Your task to perform on an android device: Open location settings Image 0: 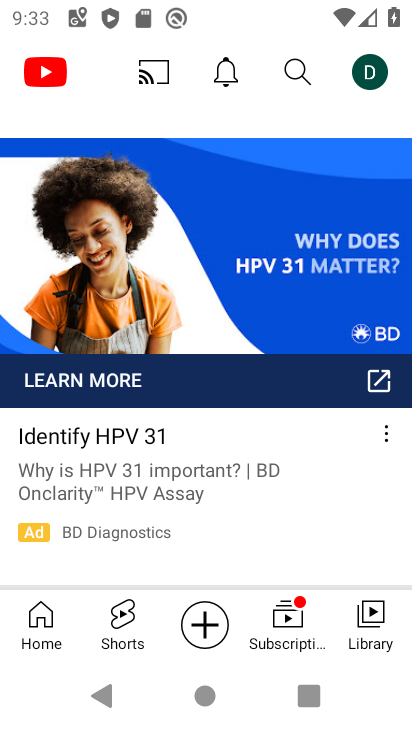
Step 0: press home button
Your task to perform on an android device: Open location settings Image 1: 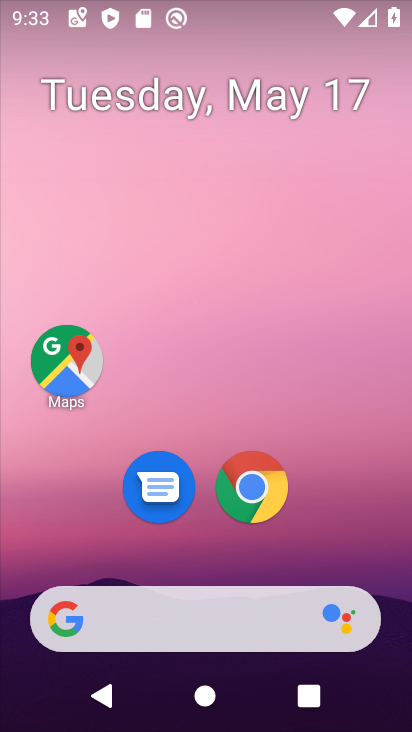
Step 1: drag from (255, 661) to (246, 218)
Your task to perform on an android device: Open location settings Image 2: 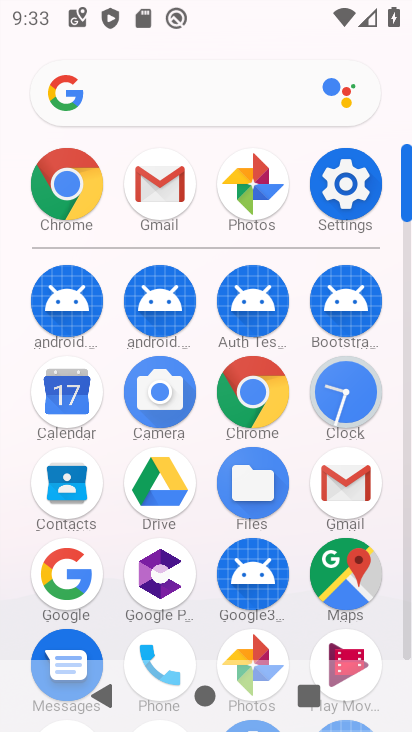
Step 2: click (347, 202)
Your task to perform on an android device: Open location settings Image 3: 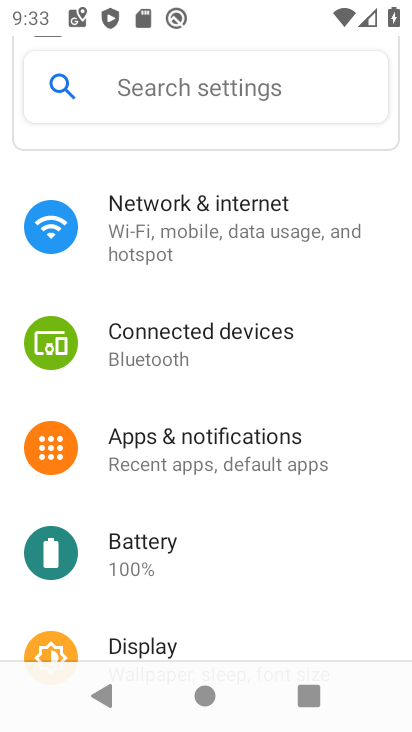
Step 3: click (132, 100)
Your task to perform on an android device: Open location settings Image 4: 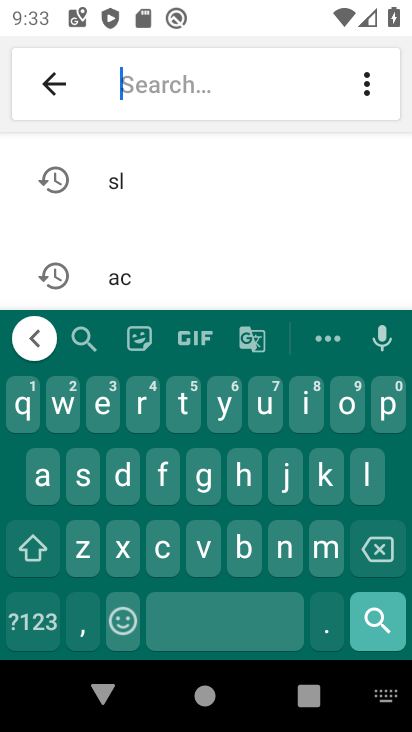
Step 4: click (372, 478)
Your task to perform on an android device: Open location settings Image 5: 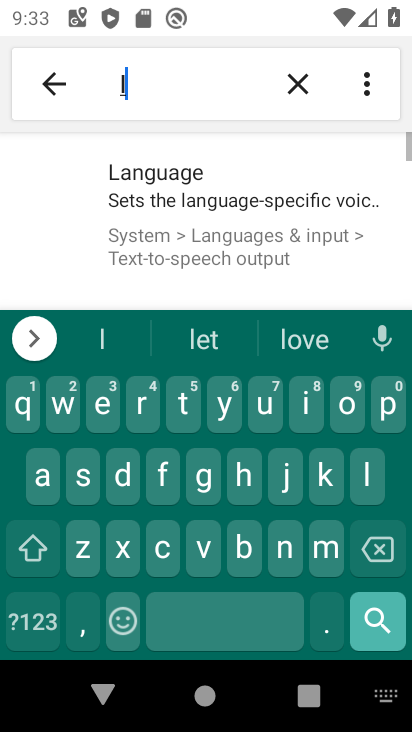
Step 5: click (356, 414)
Your task to perform on an android device: Open location settings Image 6: 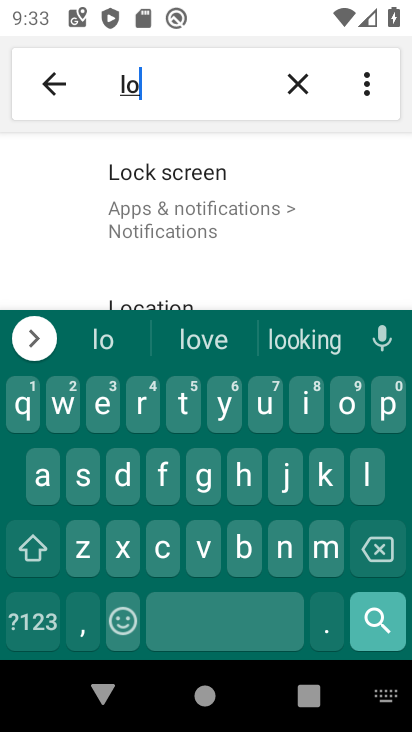
Step 6: drag from (167, 254) to (151, 171)
Your task to perform on an android device: Open location settings Image 7: 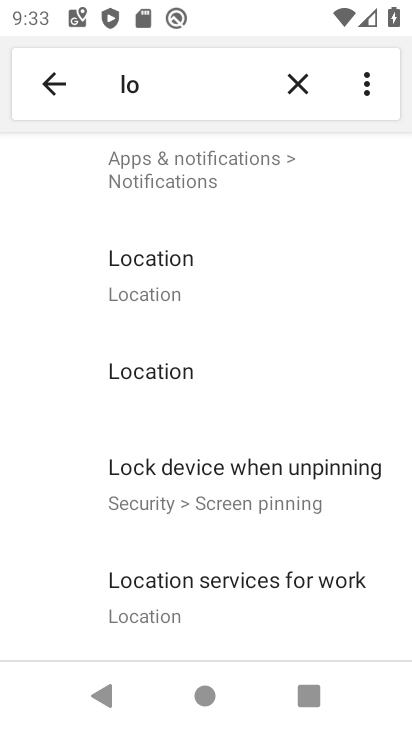
Step 7: click (203, 266)
Your task to perform on an android device: Open location settings Image 8: 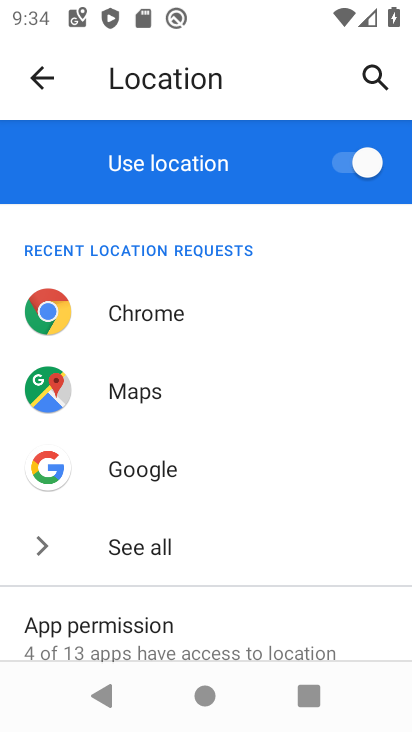
Step 8: task complete